Your task to perform on an android device: Open Youtube and go to the subscriptions tab Image 0: 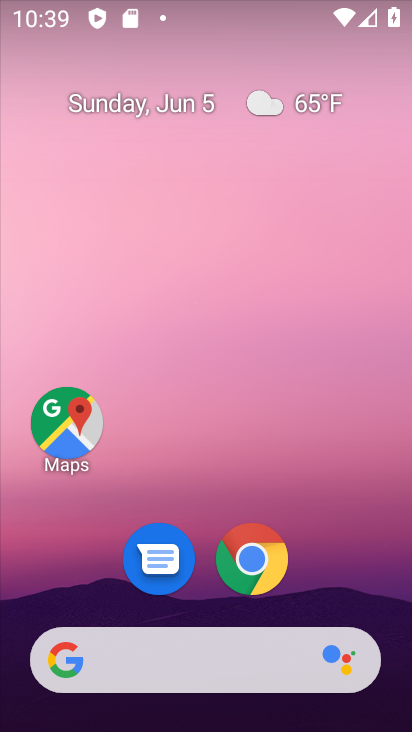
Step 0: drag from (362, 614) to (347, 119)
Your task to perform on an android device: Open Youtube and go to the subscriptions tab Image 1: 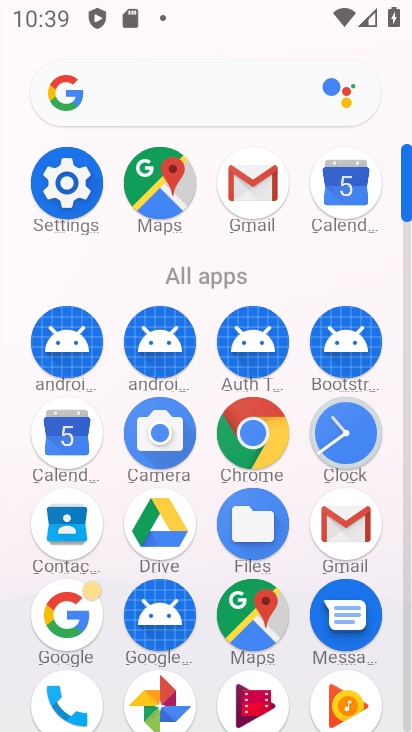
Step 1: click (407, 719)
Your task to perform on an android device: Open Youtube and go to the subscriptions tab Image 2: 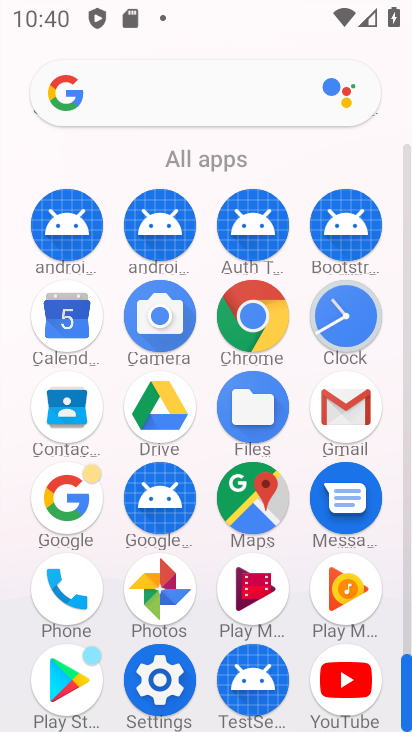
Step 2: click (357, 691)
Your task to perform on an android device: Open Youtube and go to the subscriptions tab Image 3: 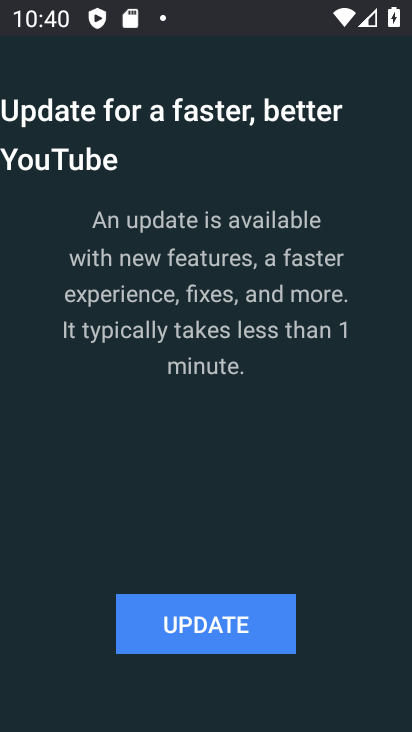
Step 3: click (258, 636)
Your task to perform on an android device: Open Youtube and go to the subscriptions tab Image 4: 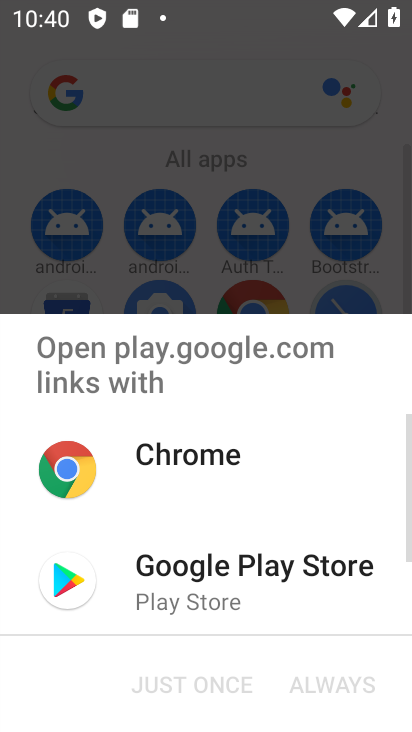
Step 4: click (248, 582)
Your task to perform on an android device: Open Youtube and go to the subscriptions tab Image 5: 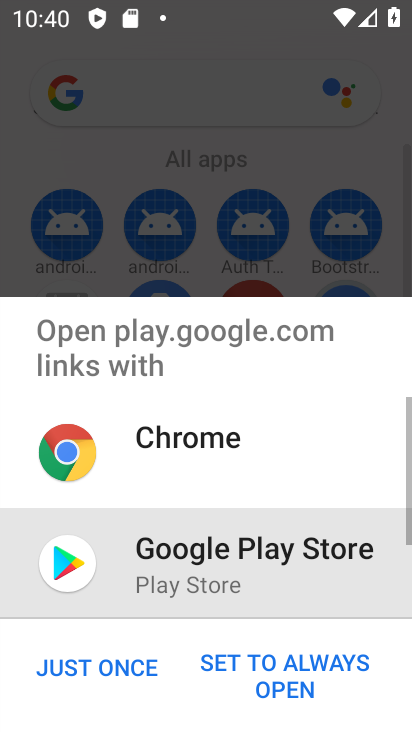
Step 5: click (107, 689)
Your task to perform on an android device: Open Youtube and go to the subscriptions tab Image 6: 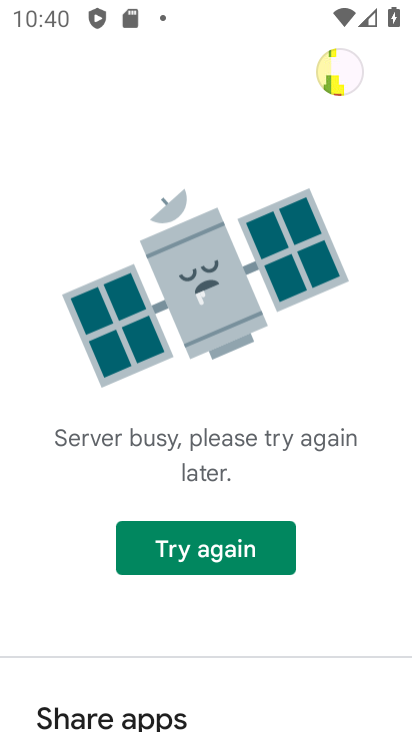
Step 6: task complete